Your task to perform on an android device: Go to network settings Image 0: 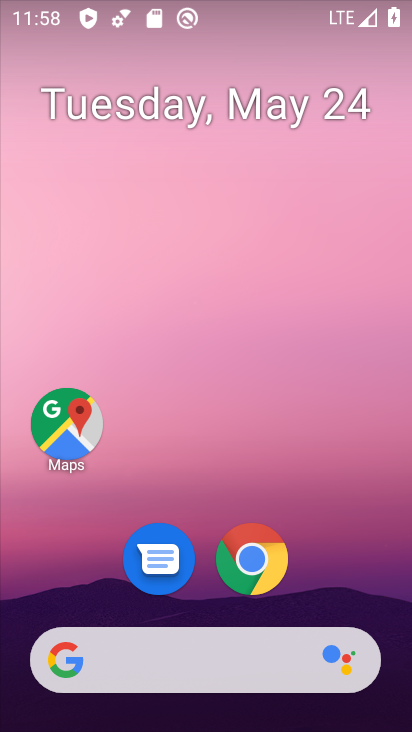
Step 0: drag from (385, 599) to (318, 170)
Your task to perform on an android device: Go to network settings Image 1: 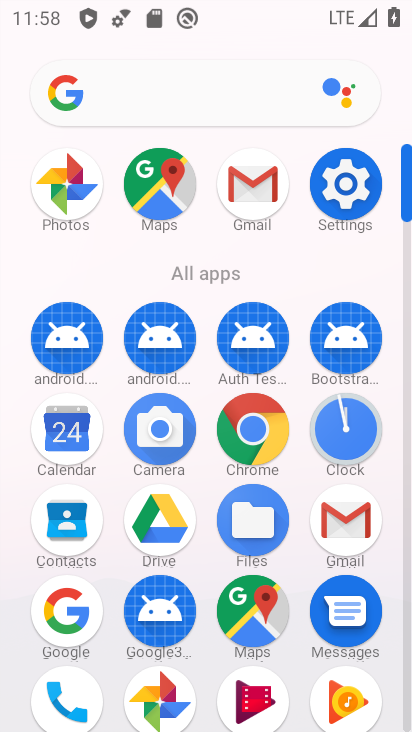
Step 1: click (409, 679)
Your task to perform on an android device: Go to network settings Image 2: 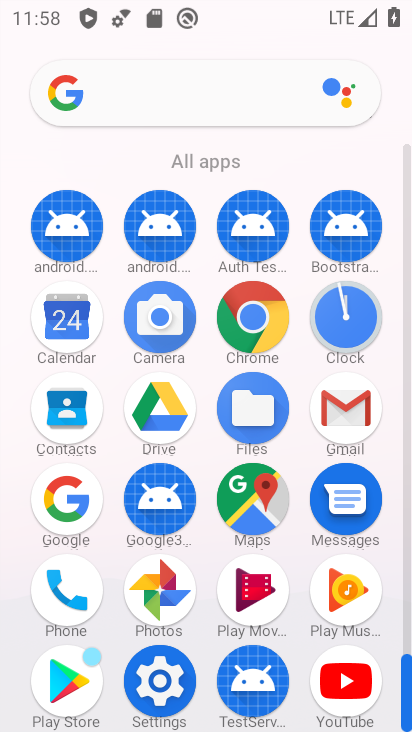
Step 2: click (157, 685)
Your task to perform on an android device: Go to network settings Image 3: 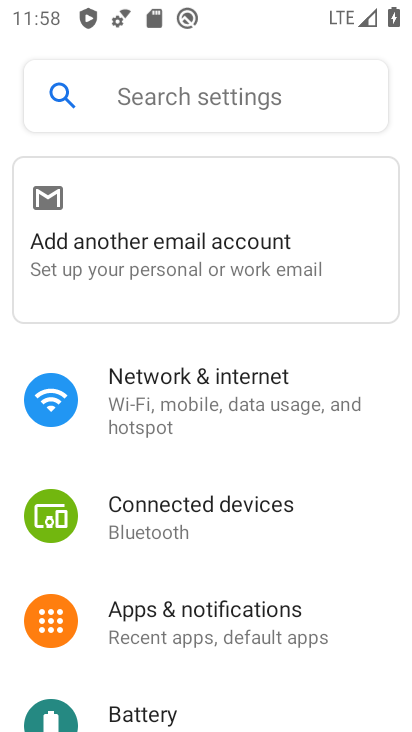
Step 3: click (180, 401)
Your task to perform on an android device: Go to network settings Image 4: 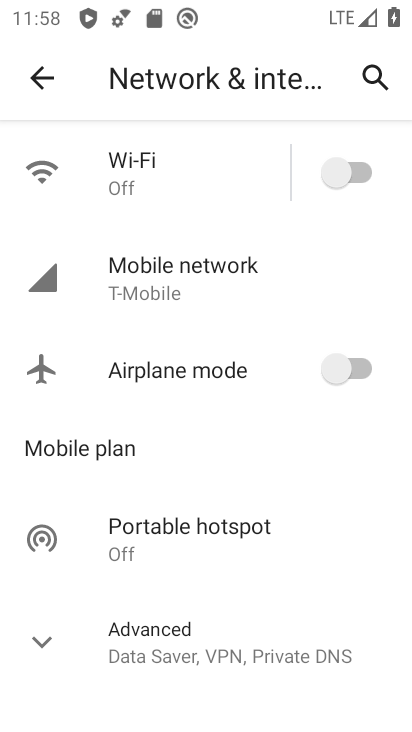
Step 4: click (42, 636)
Your task to perform on an android device: Go to network settings Image 5: 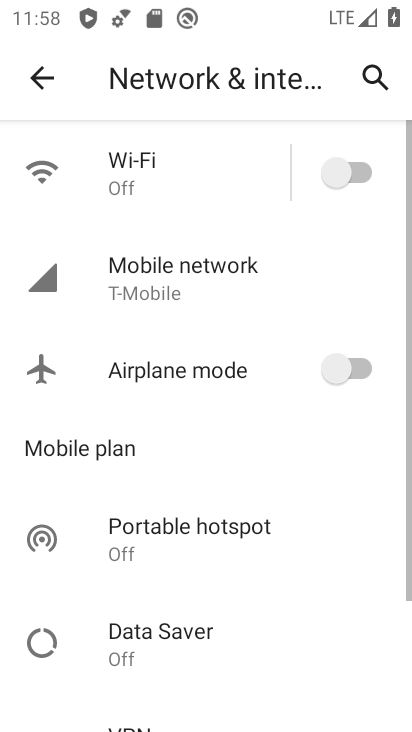
Step 5: task complete